Your task to perform on an android device: turn on the 24-hour format for clock Image 0: 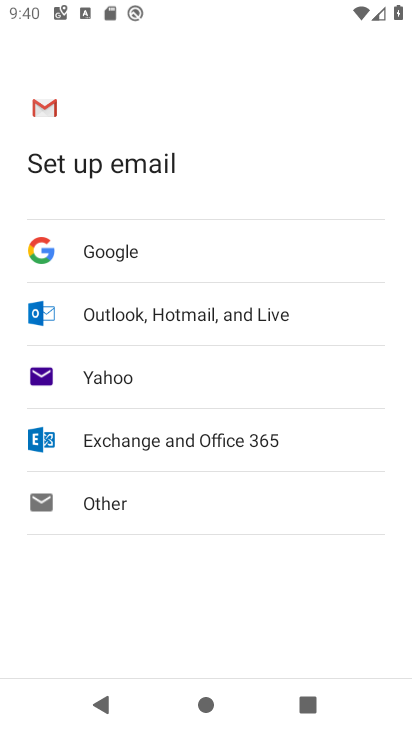
Step 0: press home button
Your task to perform on an android device: turn on the 24-hour format for clock Image 1: 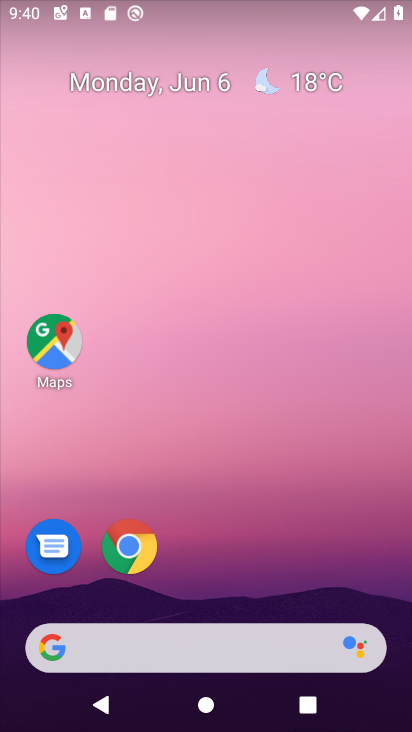
Step 1: drag from (395, 619) to (277, 71)
Your task to perform on an android device: turn on the 24-hour format for clock Image 2: 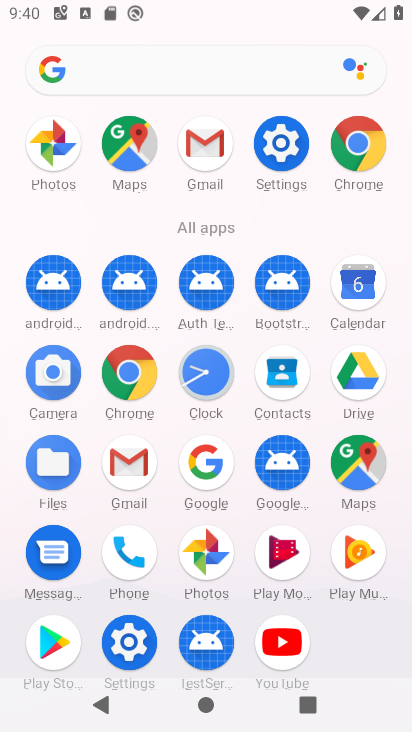
Step 2: click (205, 371)
Your task to perform on an android device: turn on the 24-hour format for clock Image 3: 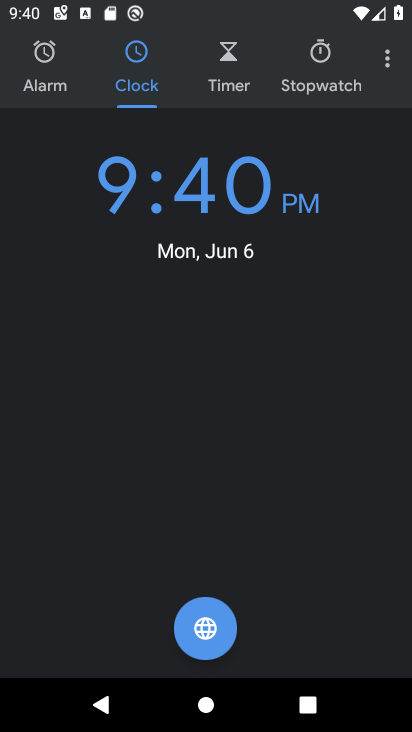
Step 3: click (389, 64)
Your task to perform on an android device: turn on the 24-hour format for clock Image 4: 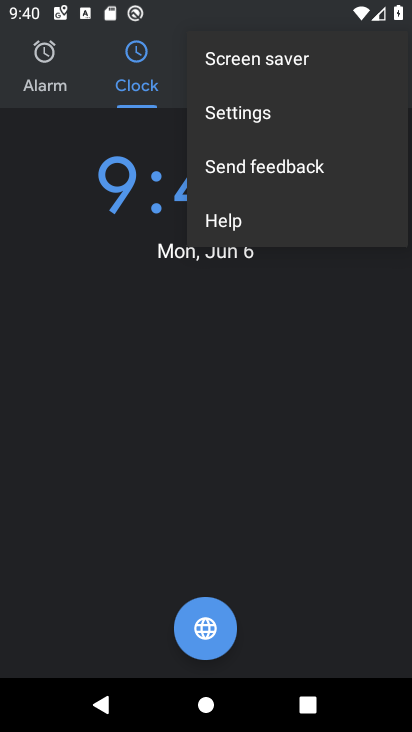
Step 4: click (236, 118)
Your task to perform on an android device: turn on the 24-hour format for clock Image 5: 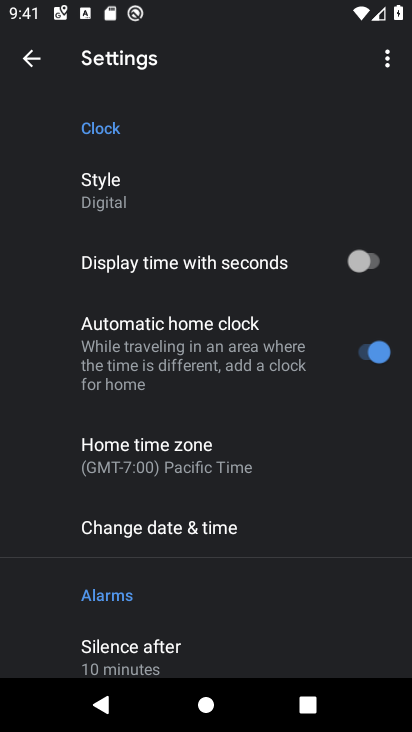
Step 5: click (218, 522)
Your task to perform on an android device: turn on the 24-hour format for clock Image 6: 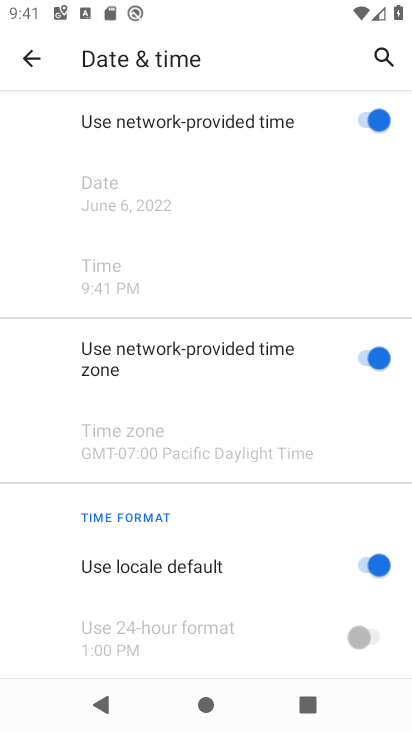
Step 6: drag from (282, 594) to (272, 408)
Your task to perform on an android device: turn on the 24-hour format for clock Image 7: 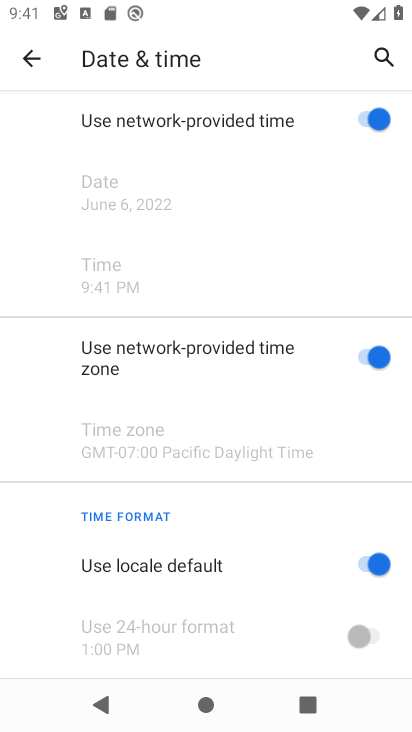
Step 7: click (361, 557)
Your task to perform on an android device: turn on the 24-hour format for clock Image 8: 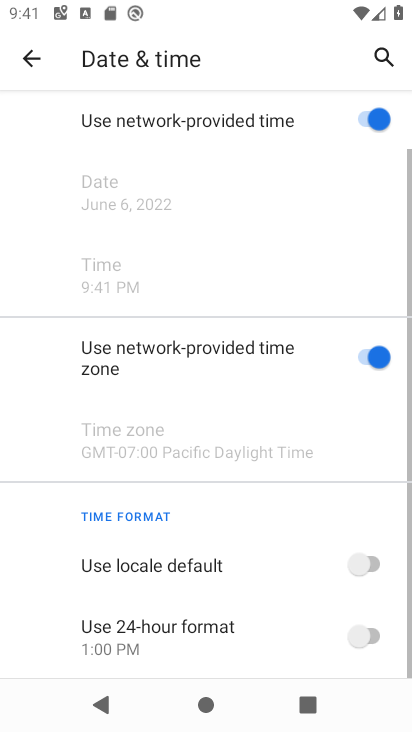
Step 8: click (368, 643)
Your task to perform on an android device: turn on the 24-hour format for clock Image 9: 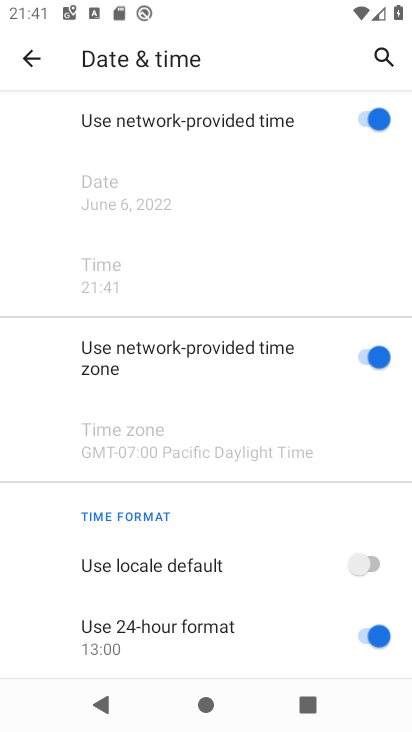
Step 9: task complete